Your task to perform on an android device: find snoozed emails in the gmail app Image 0: 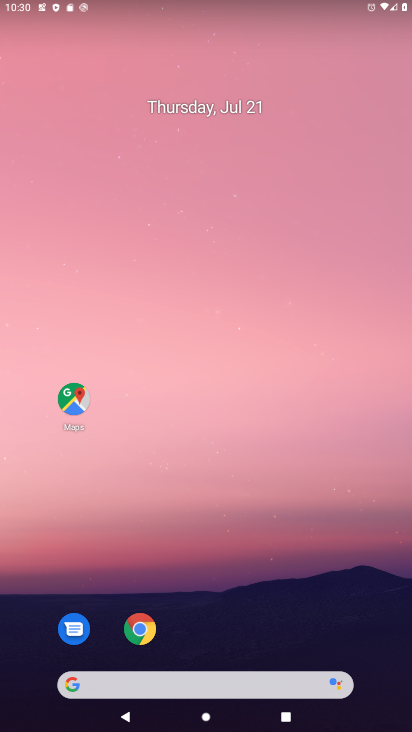
Step 0: press home button
Your task to perform on an android device: find snoozed emails in the gmail app Image 1: 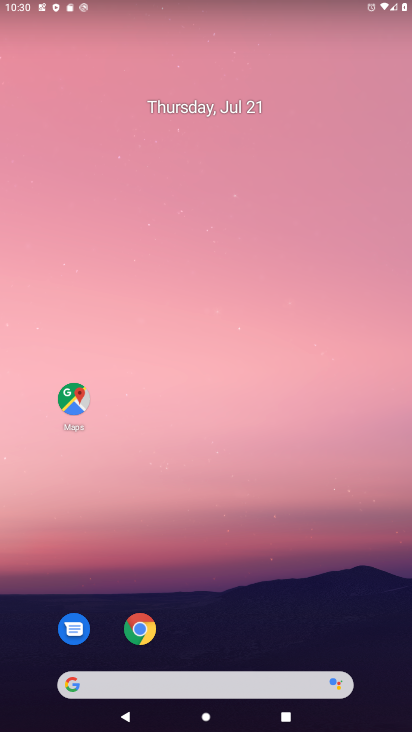
Step 1: drag from (267, 548) to (299, 289)
Your task to perform on an android device: find snoozed emails in the gmail app Image 2: 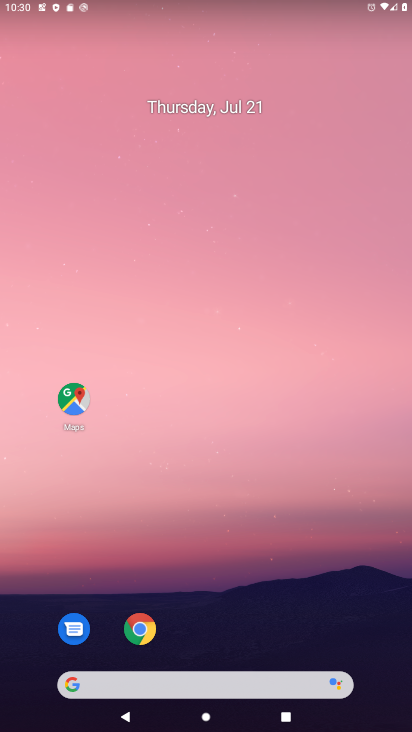
Step 2: drag from (287, 626) to (328, 30)
Your task to perform on an android device: find snoozed emails in the gmail app Image 3: 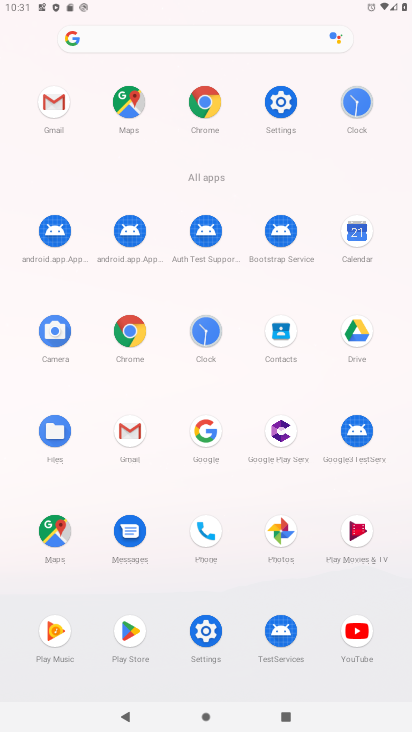
Step 3: click (150, 450)
Your task to perform on an android device: find snoozed emails in the gmail app Image 4: 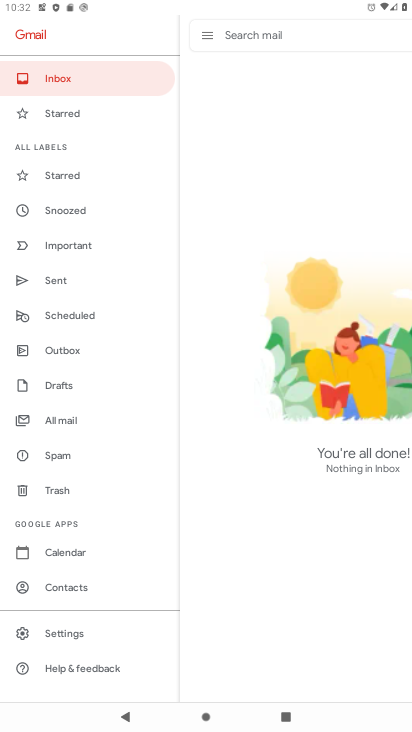
Step 4: click (69, 215)
Your task to perform on an android device: find snoozed emails in the gmail app Image 5: 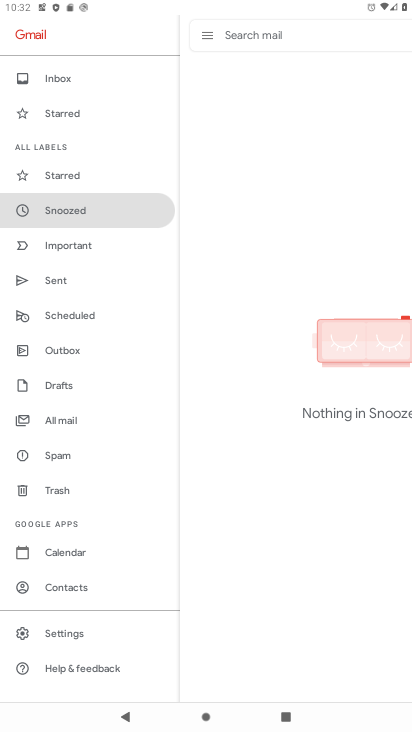
Step 5: task complete